Your task to perform on an android device: turn off picture-in-picture Image 0: 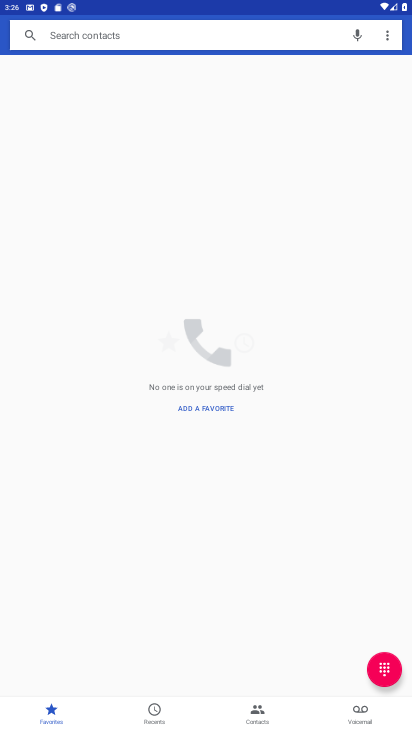
Step 0: press home button
Your task to perform on an android device: turn off picture-in-picture Image 1: 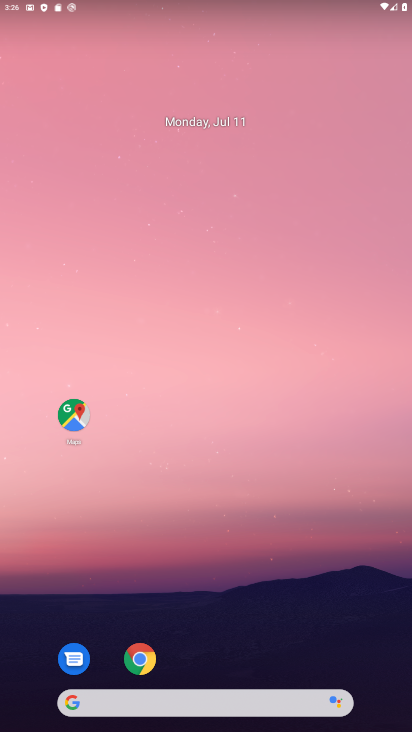
Step 1: drag from (188, 653) to (188, 408)
Your task to perform on an android device: turn off picture-in-picture Image 2: 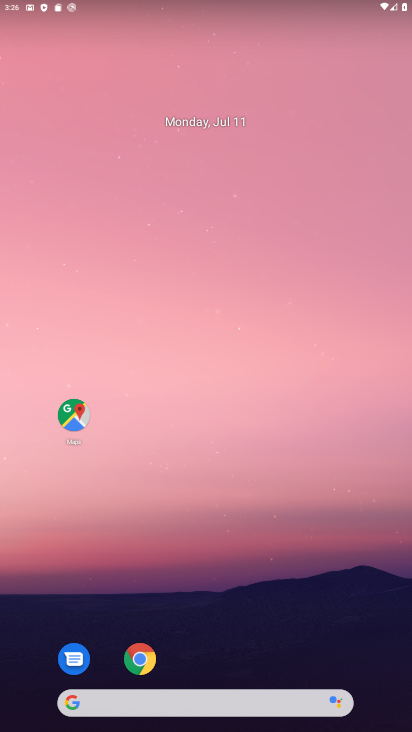
Step 2: drag from (203, 630) to (204, 274)
Your task to perform on an android device: turn off picture-in-picture Image 3: 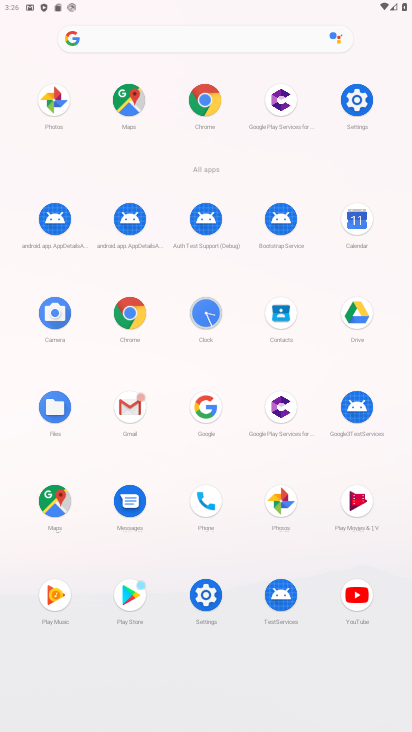
Step 3: click (358, 94)
Your task to perform on an android device: turn off picture-in-picture Image 4: 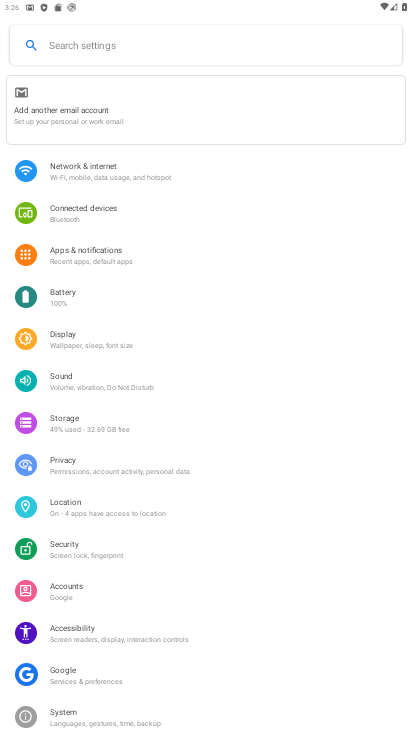
Step 4: click (88, 262)
Your task to perform on an android device: turn off picture-in-picture Image 5: 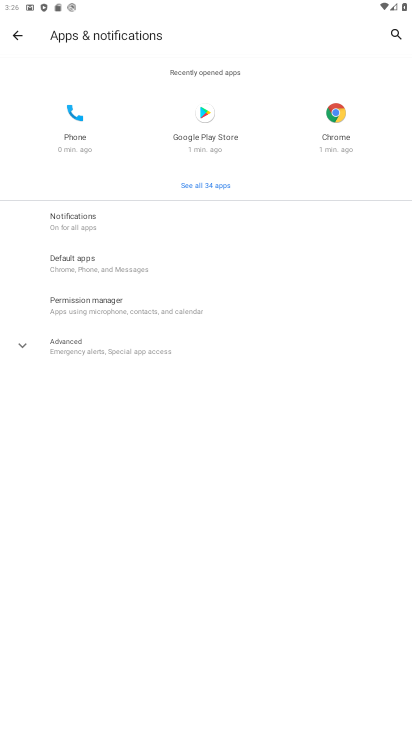
Step 5: click (65, 342)
Your task to perform on an android device: turn off picture-in-picture Image 6: 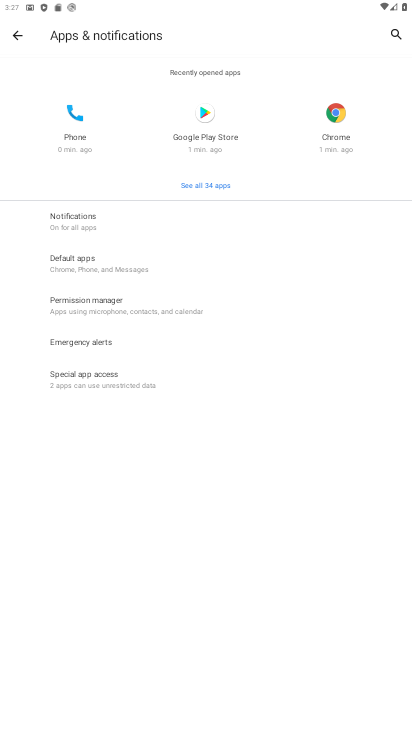
Step 6: click (113, 382)
Your task to perform on an android device: turn off picture-in-picture Image 7: 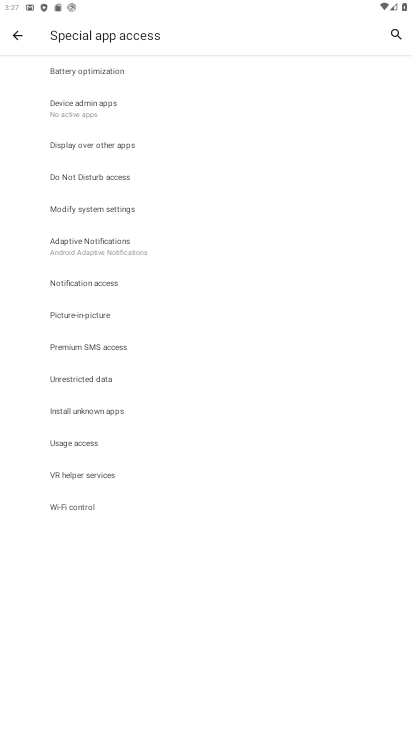
Step 7: click (119, 319)
Your task to perform on an android device: turn off picture-in-picture Image 8: 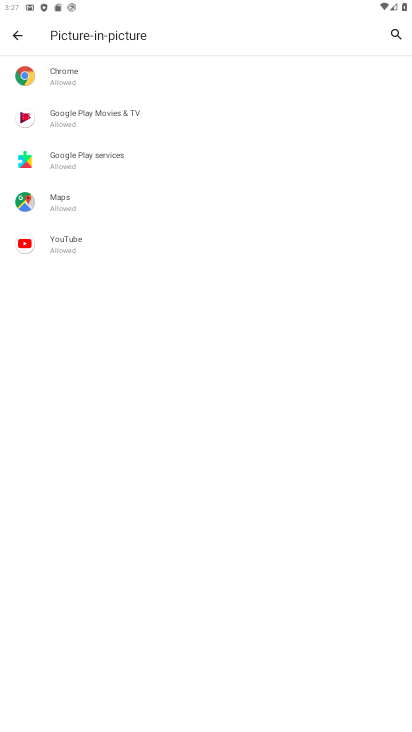
Step 8: click (63, 68)
Your task to perform on an android device: turn off picture-in-picture Image 9: 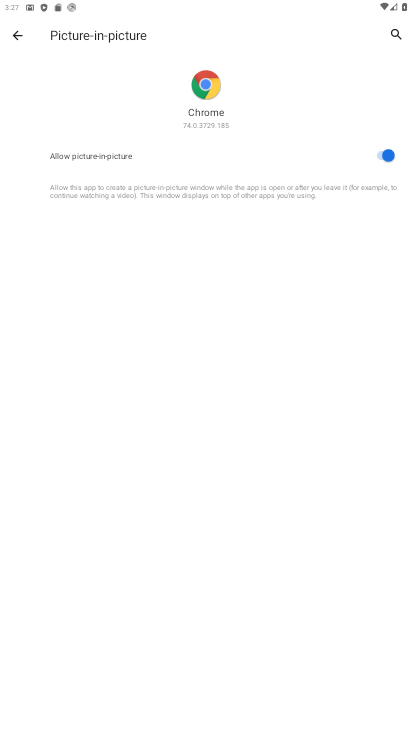
Step 9: click (384, 155)
Your task to perform on an android device: turn off picture-in-picture Image 10: 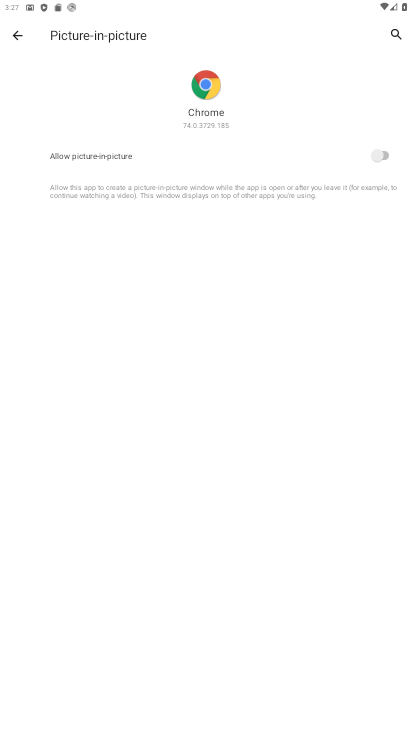
Step 10: task complete